Your task to perform on an android device: turn off notifications settings in the gmail app Image 0: 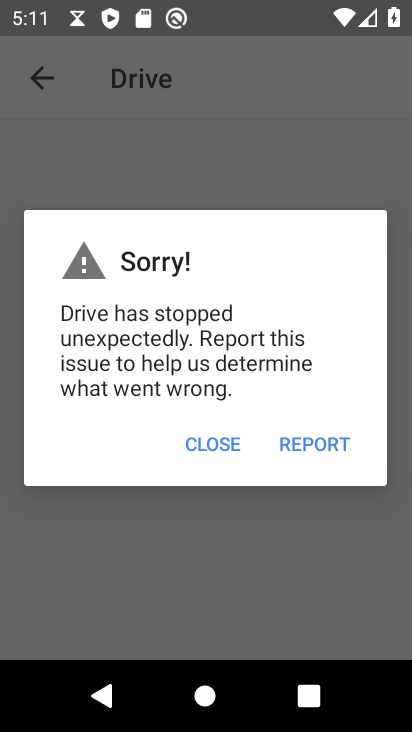
Step 0: press home button
Your task to perform on an android device: turn off notifications settings in the gmail app Image 1: 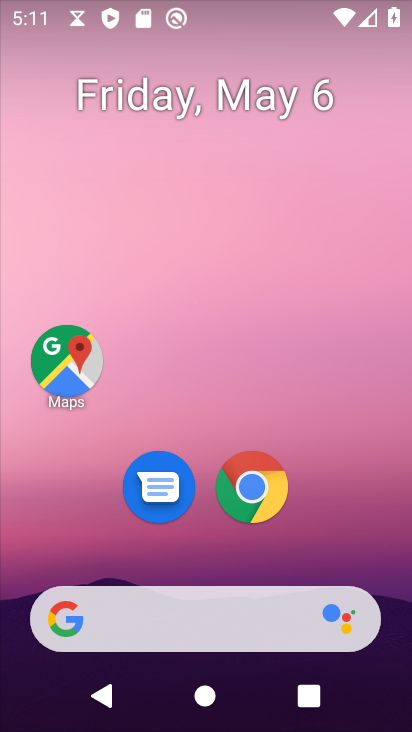
Step 1: drag from (307, 543) to (207, 0)
Your task to perform on an android device: turn off notifications settings in the gmail app Image 2: 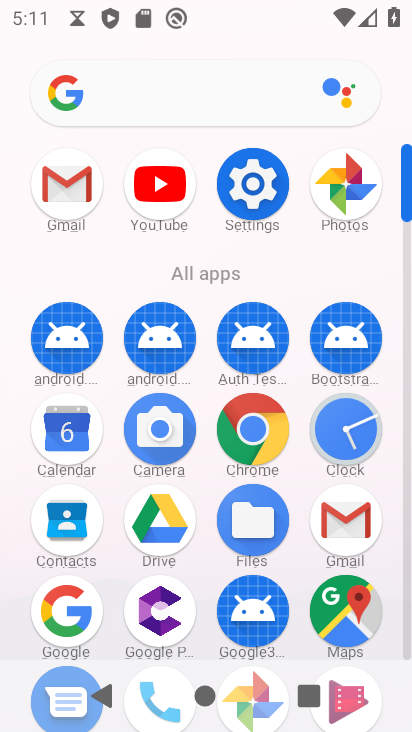
Step 2: click (65, 181)
Your task to perform on an android device: turn off notifications settings in the gmail app Image 3: 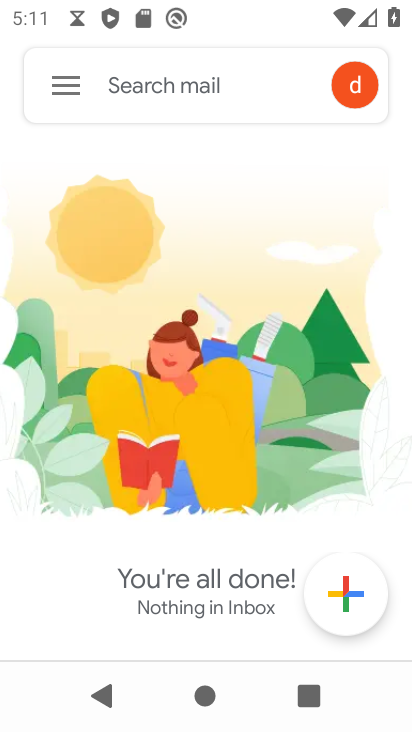
Step 3: click (68, 90)
Your task to perform on an android device: turn off notifications settings in the gmail app Image 4: 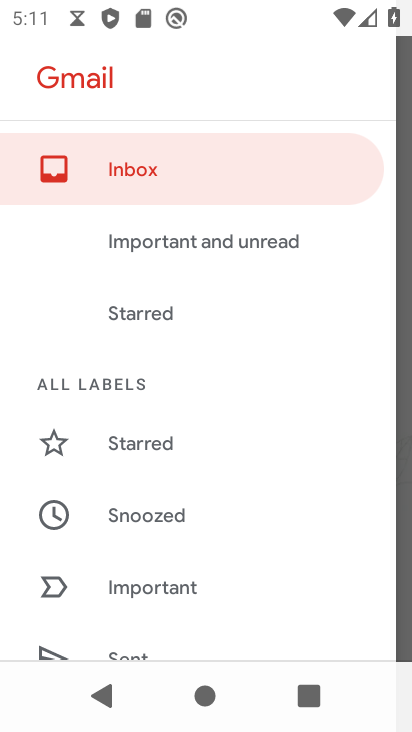
Step 4: drag from (183, 484) to (215, 349)
Your task to perform on an android device: turn off notifications settings in the gmail app Image 5: 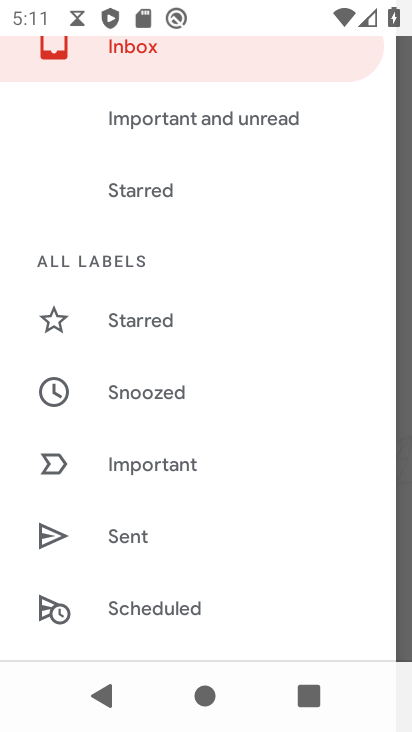
Step 5: drag from (171, 495) to (216, 341)
Your task to perform on an android device: turn off notifications settings in the gmail app Image 6: 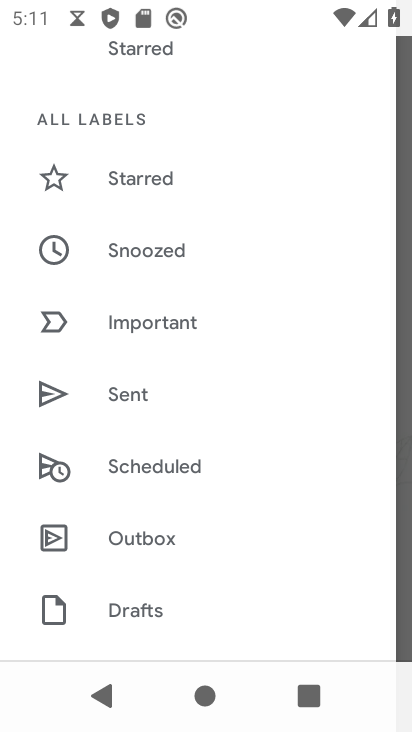
Step 6: drag from (166, 485) to (232, 358)
Your task to perform on an android device: turn off notifications settings in the gmail app Image 7: 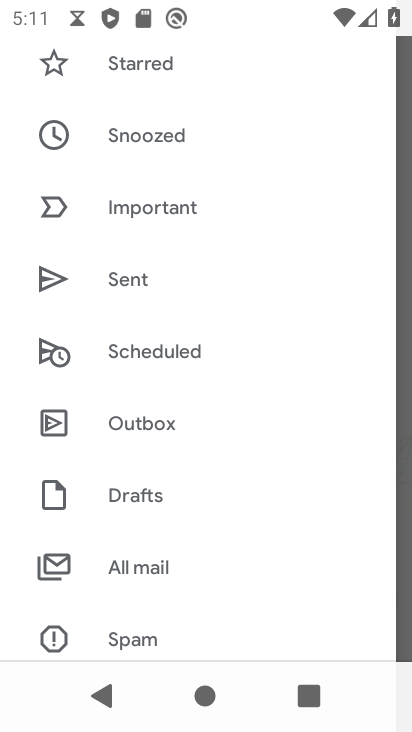
Step 7: drag from (136, 526) to (175, 394)
Your task to perform on an android device: turn off notifications settings in the gmail app Image 8: 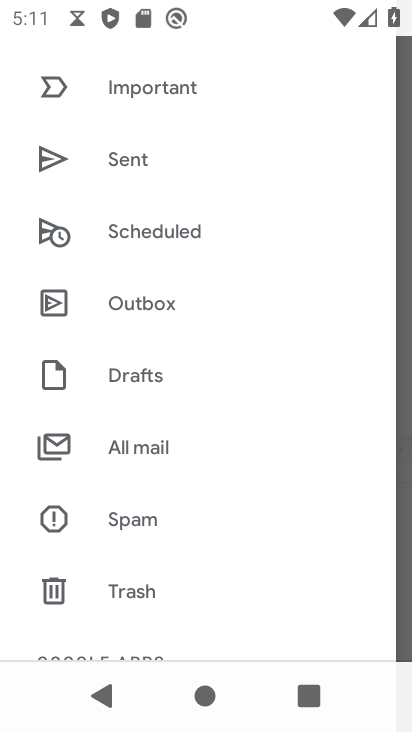
Step 8: drag from (111, 566) to (185, 417)
Your task to perform on an android device: turn off notifications settings in the gmail app Image 9: 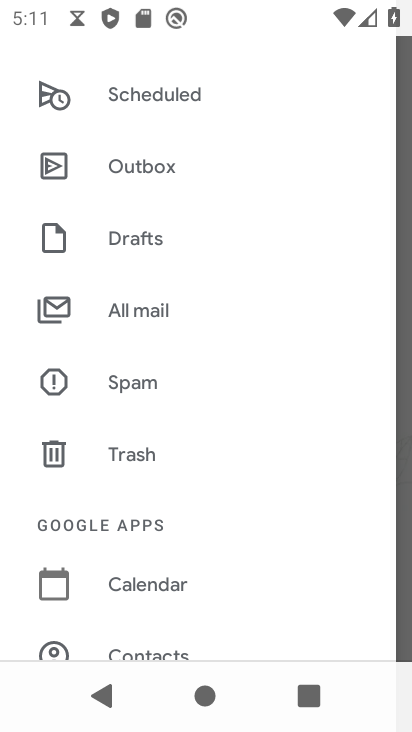
Step 9: drag from (138, 546) to (205, 381)
Your task to perform on an android device: turn off notifications settings in the gmail app Image 10: 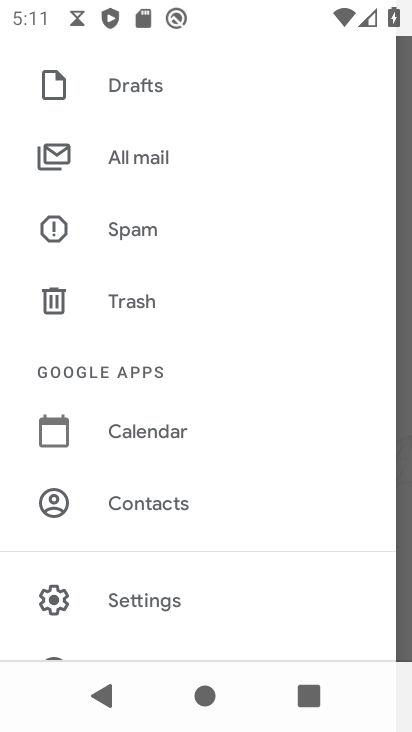
Step 10: drag from (118, 562) to (171, 455)
Your task to perform on an android device: turn off notifications settings in the gmail app Image 11: 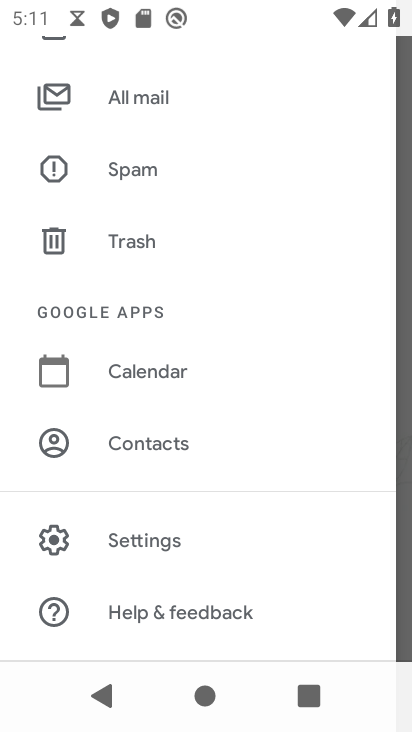
Step 11: click (129, 534)
Your task to perform on an android device: turn off notifications settings in the gmail app Image 12: 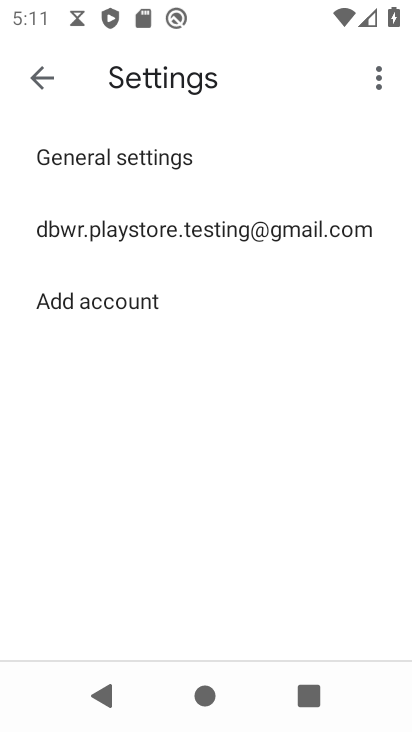
Step 12: click (166, 228)
Your task to perform on an android device: turn off notifications settings in the gmail app Image 13: 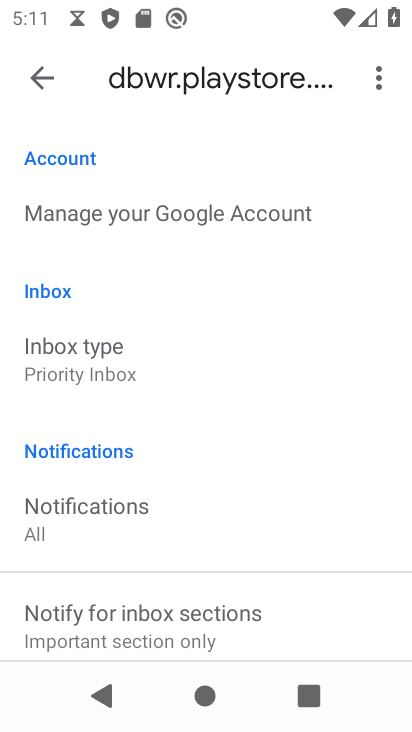
Step 13: drag from (159, 554) to (214, 400)
Your task to perform on an android device: turn off notifications settings in the gmail app Image 14: 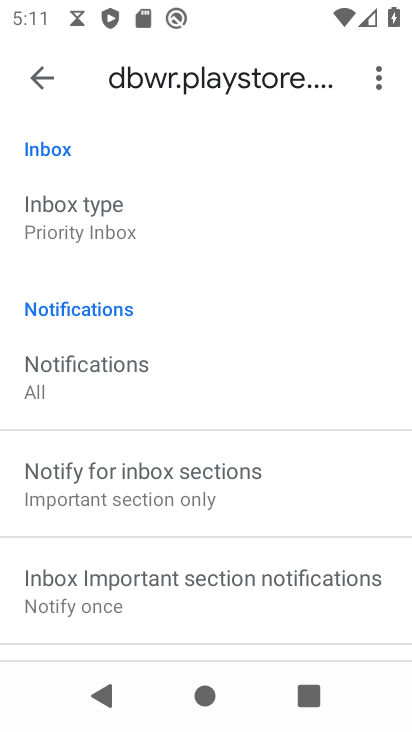
Step 14: drag from (161, 597) to (235, 399)
Your task to perform on an android device: turn off notifications settings in the gmail app Image 15: 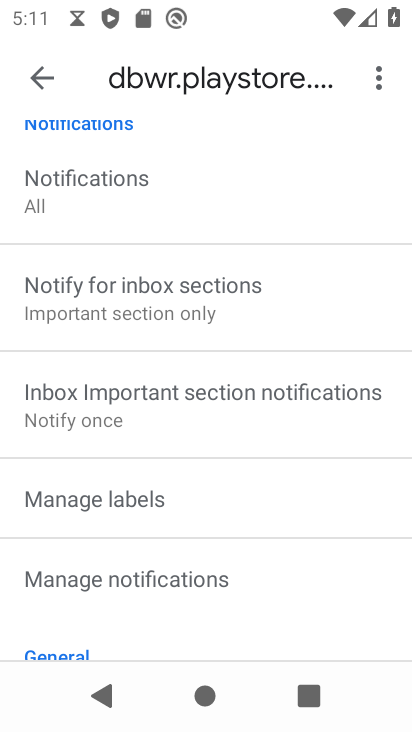
Step 15: click (146, 572)
Your task to perform on an android device: turn off notifications settings in the gmail app Image 16: 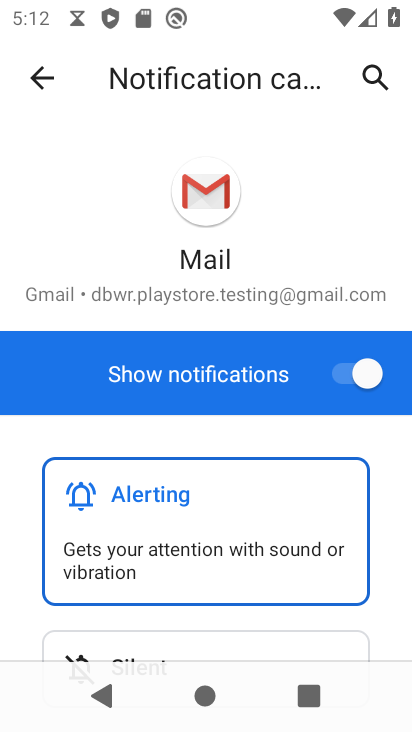
Step 16: click (352, 374)
Your task to perform on an android device: turn off notifications settings in the gmail app Image 17: 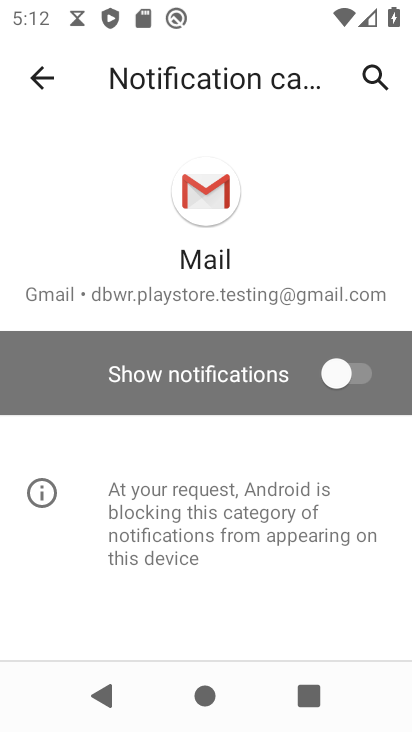
Step 17: task complete